Your task to perform on an android device: Add "amazon basics triple a" to the cart on amazon.com Image 0: 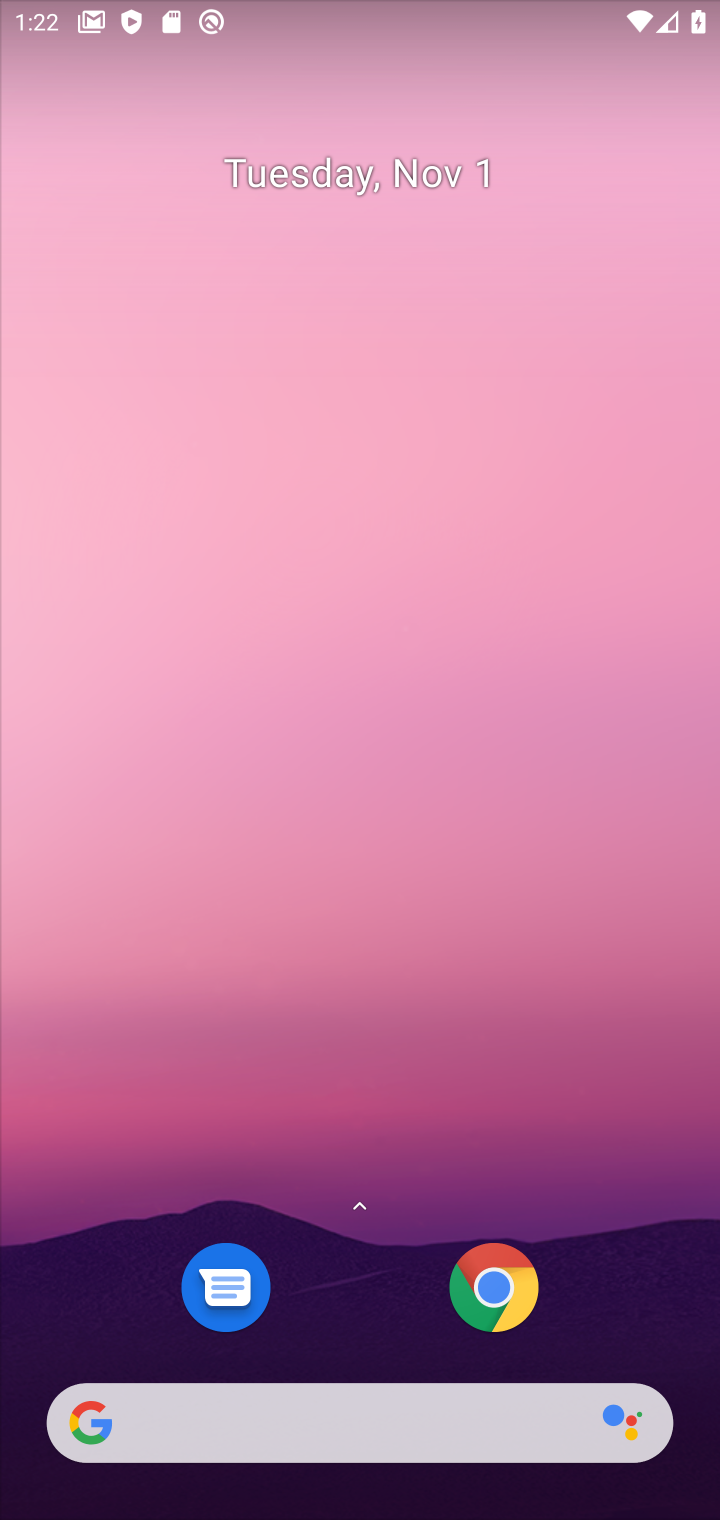
Step 0: drag from (395, 1116) to (441, 167)
Your task to perform on an android device: Add "amazon basics triple a" to the cart on amazon.com Image 1: 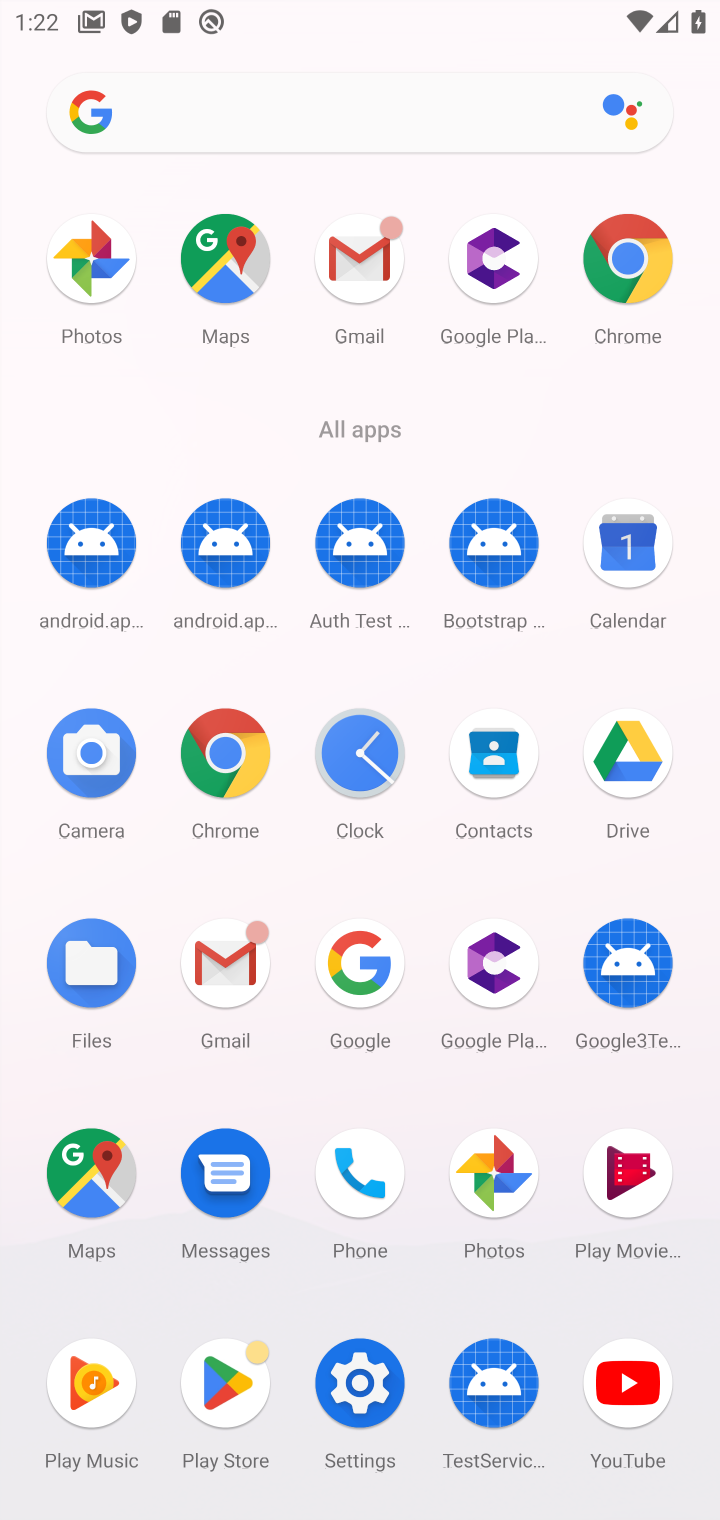
Step 1: click (233, 750)
Your task to perform on an android device: Add "amazon basics triple a" to the cart on amazon.com Image 2: 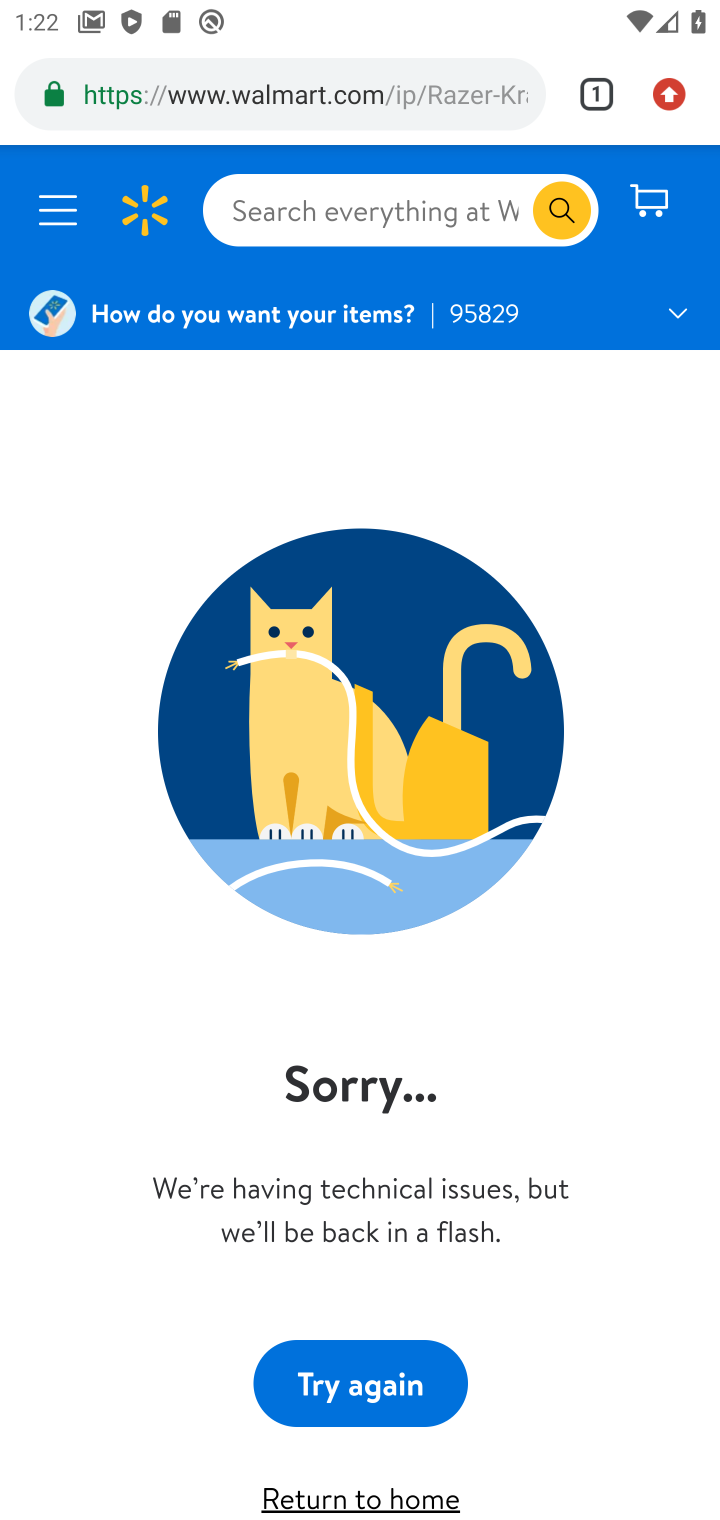
Step 2: click (417, 82)
Your task to perform on an android device: Add "amazon basics triple a" to the cart on amazon.com Image 3: 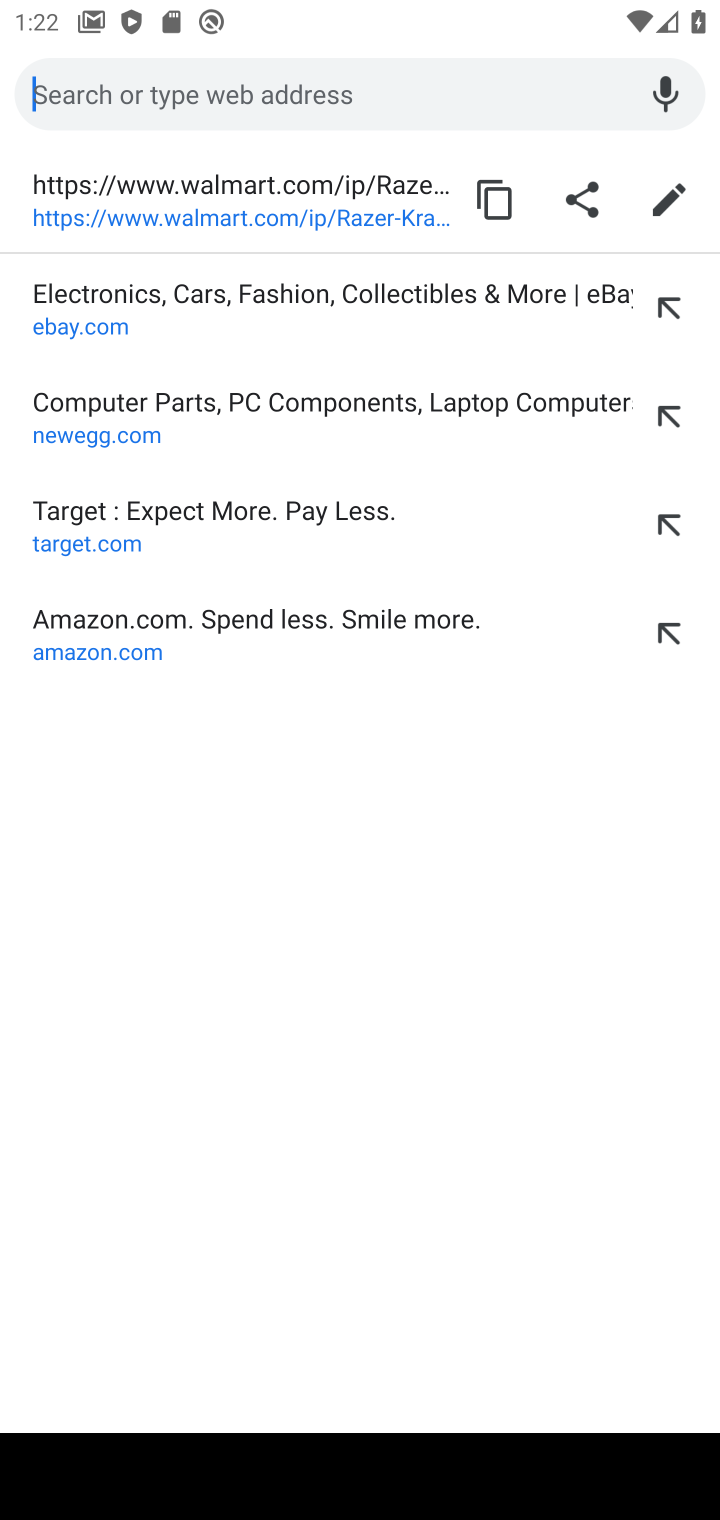
Step 3: type "amazon.com"
Your task to perform on an android device: Add "amazon basics triple a" to the cart on amazon.com Image 4: 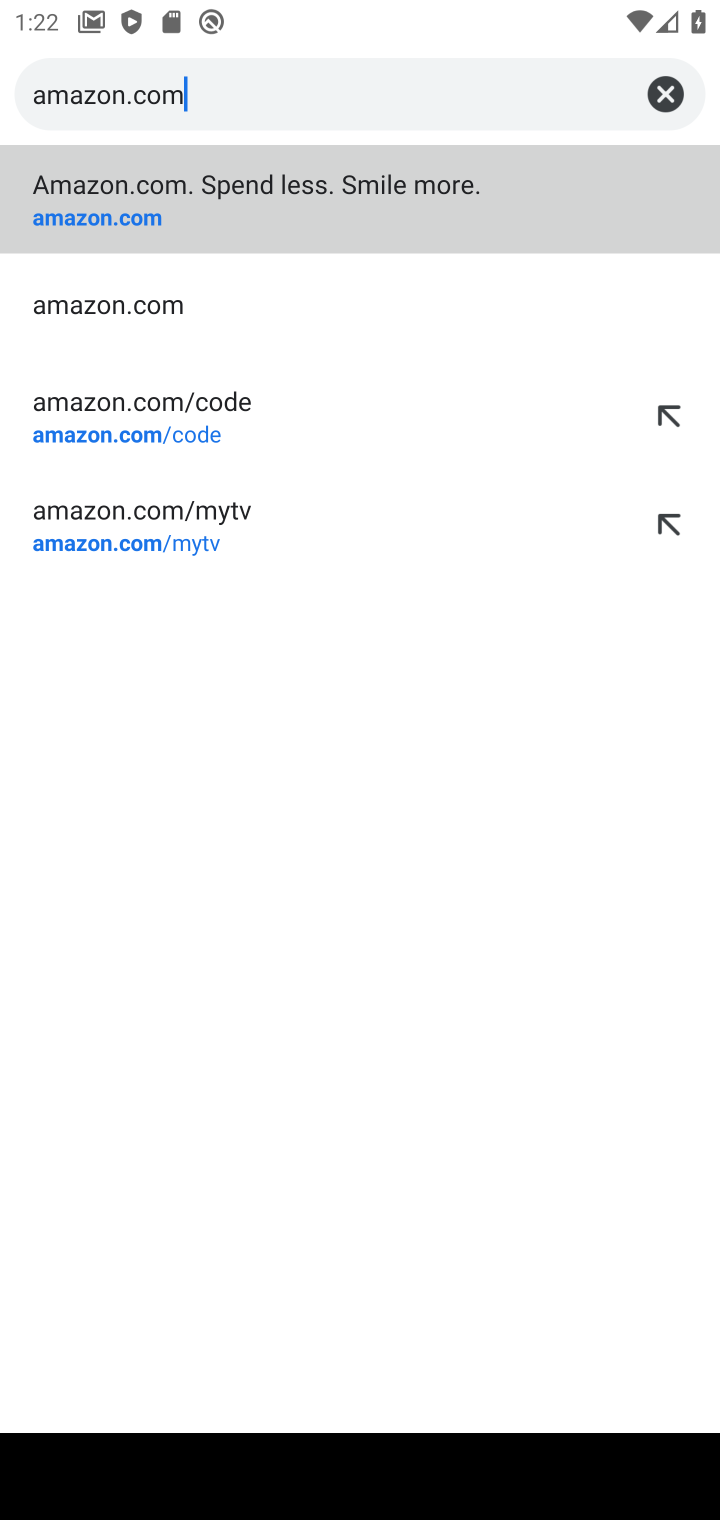
Step 4: press enter
Your task to perform on an android device: Add "amazon basics triple a" to the cart on amazon.com Image 5: 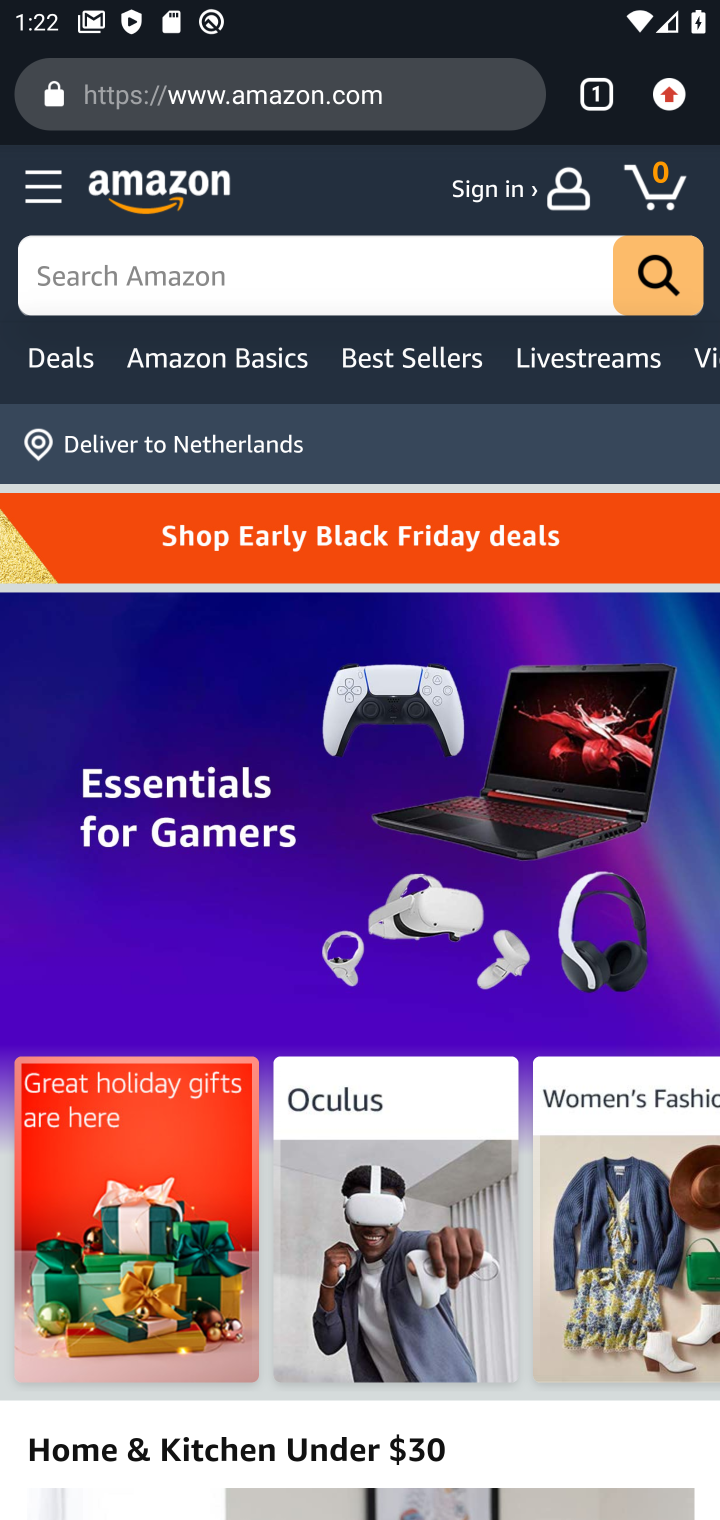
Step 5: click (480, 299)
Your task to perform on an android device: Add "amazon basics triple a" to the cart on amazon.com Image 6: 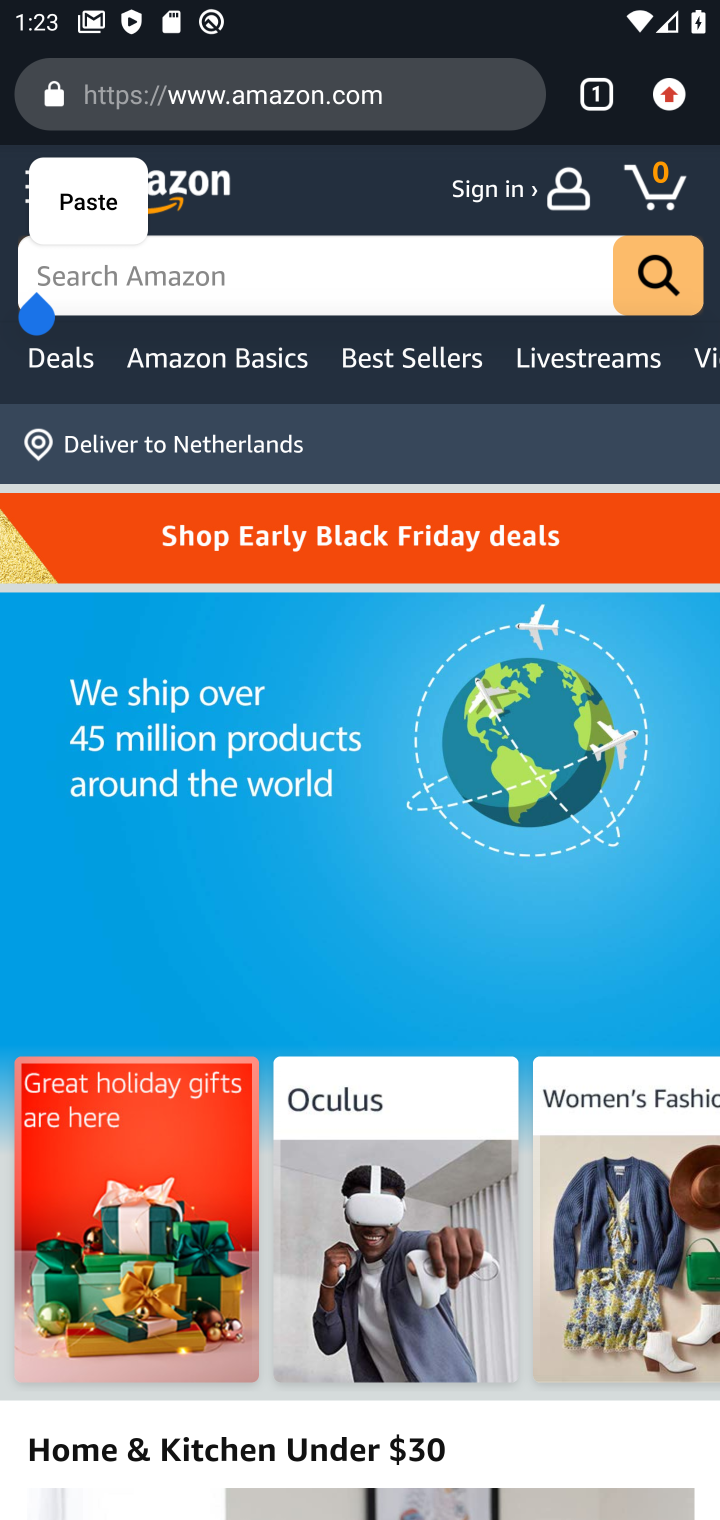
Step 6: click (466, 280)
Your task to perform on an android device: Add "amazon basics triple a" to the cart on amazon.com Image 7: 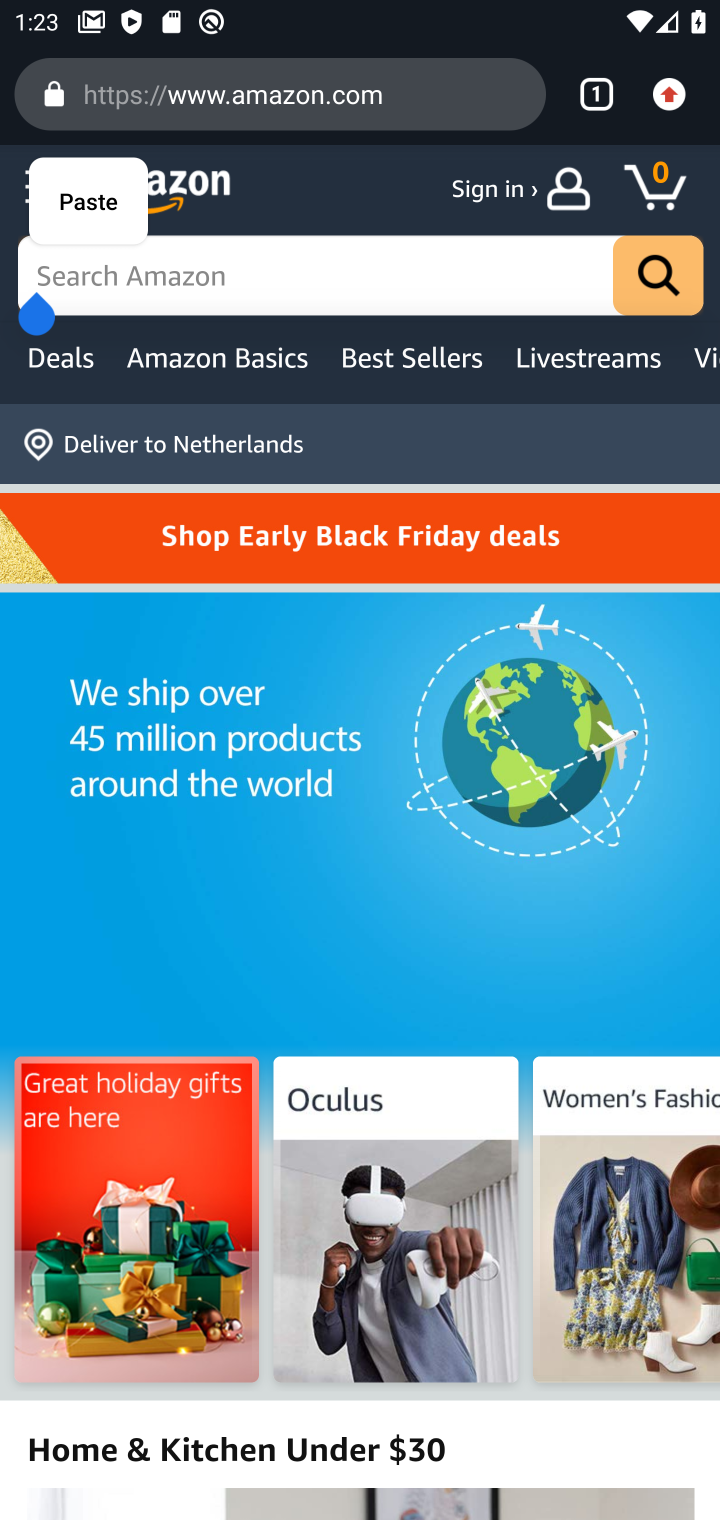
Step 7: type "amazon basic"
Your task to perform on an android device: Add "amazon basics triple a" to the cart on amazon.com Image 8: 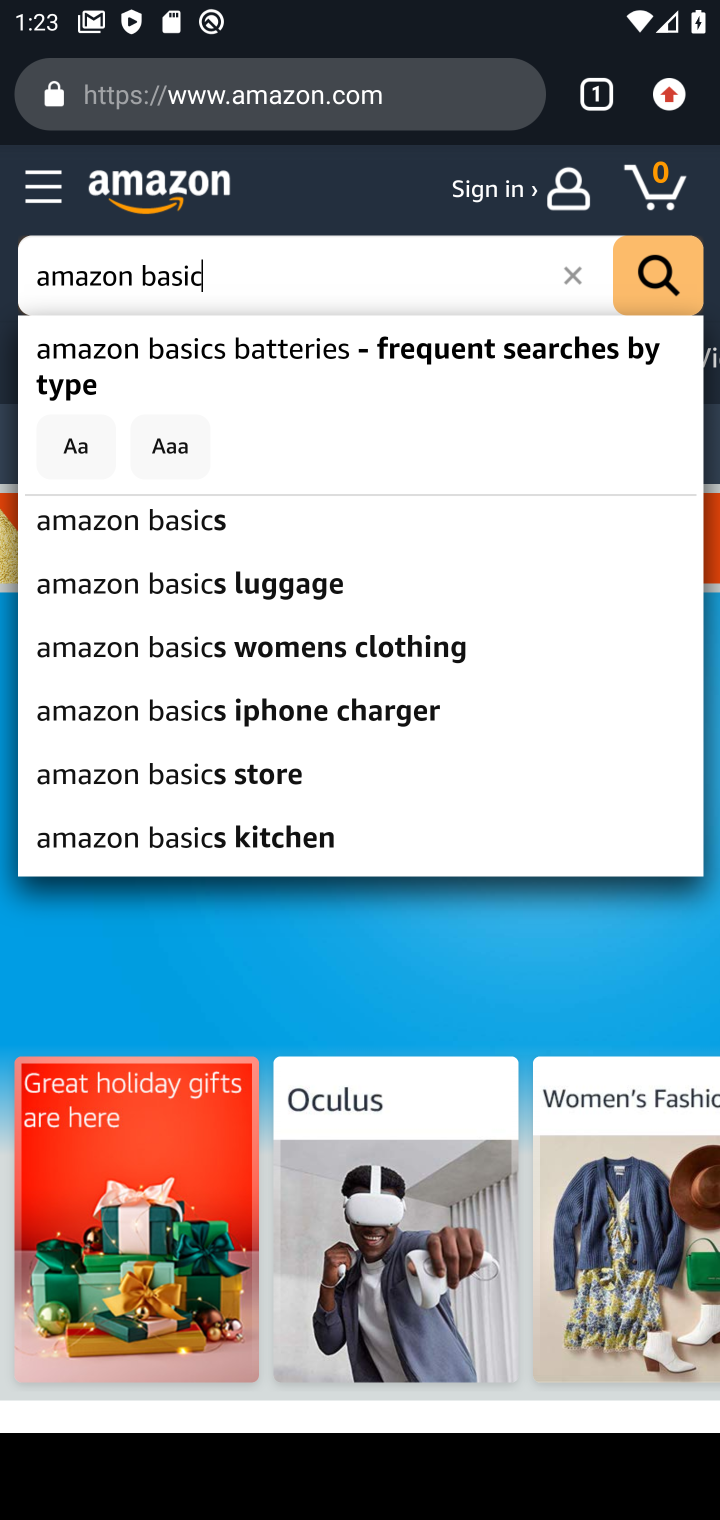
Step 8: type " a"
Your task to perform on an android device: Add "amazon basics triple a" to the cart on amazon.com Image 9: 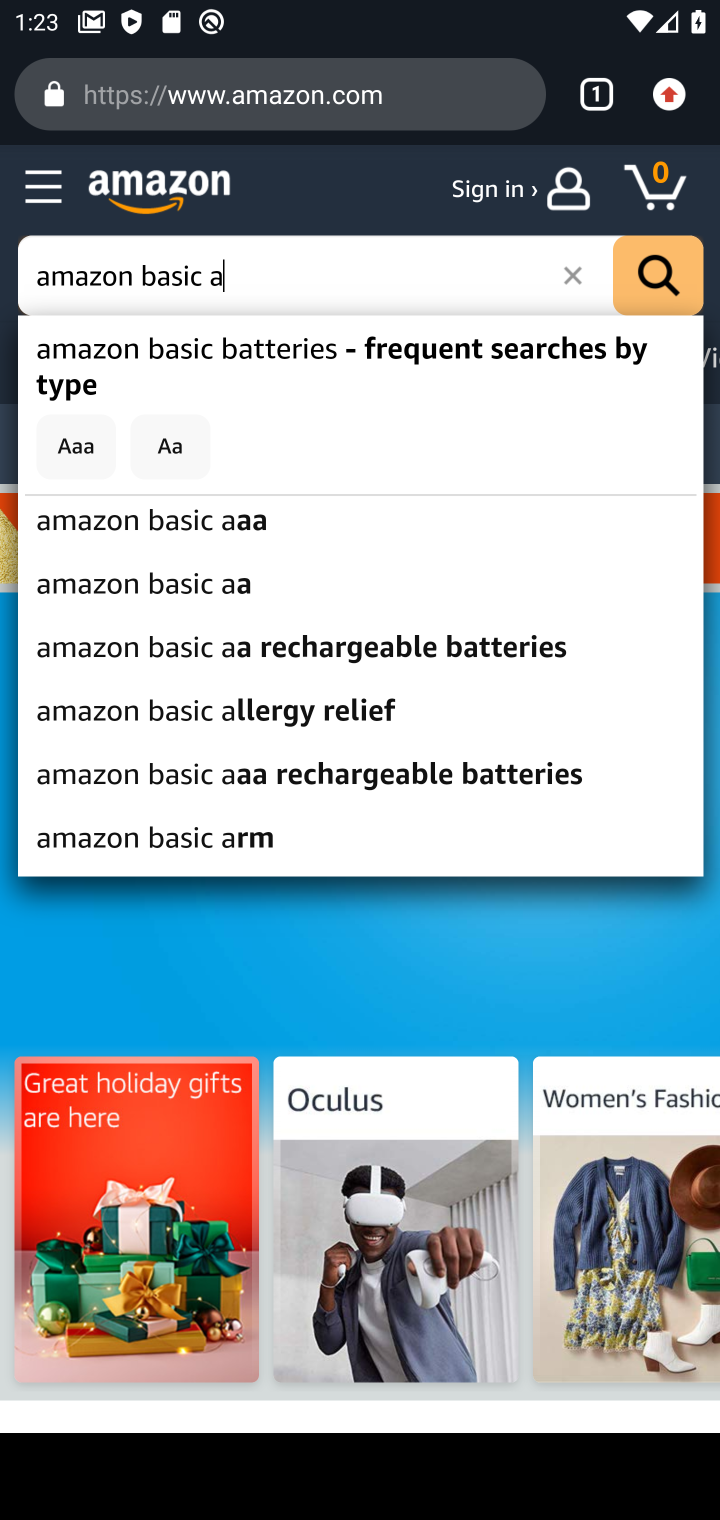
Step 9: press enter
Your task to perform on an android device: Add "amazon basics triple a" to the cart on amazon.com Image 10: 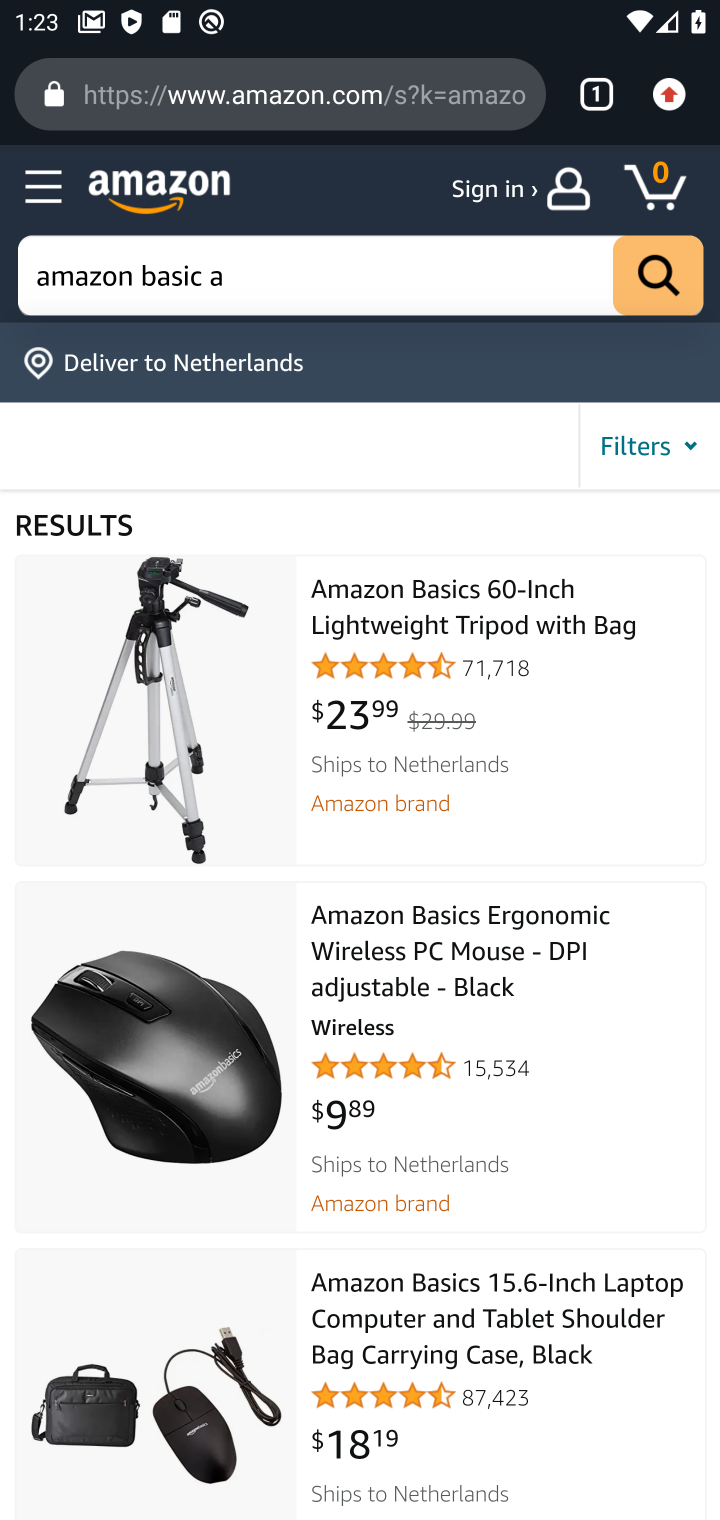
Step 10: task complete